Your task to perform on an android device: open chrome and create a bookmark for the current page Image 0: 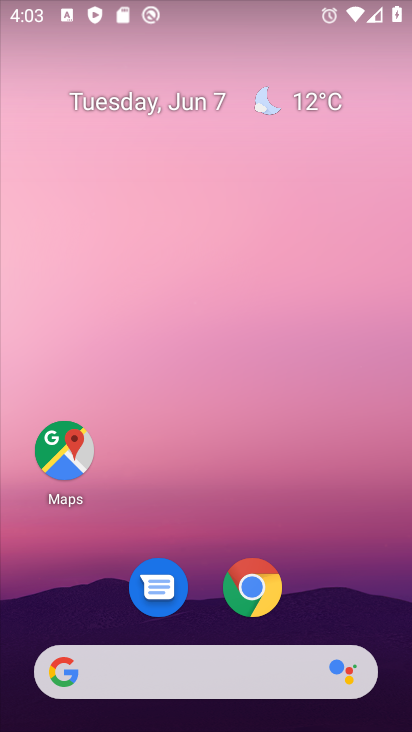
Step 0: drag from (311, 447) to (299, 338)
Your task to perform on an android device: open chrome and create a bookmark for the current page Image 1: 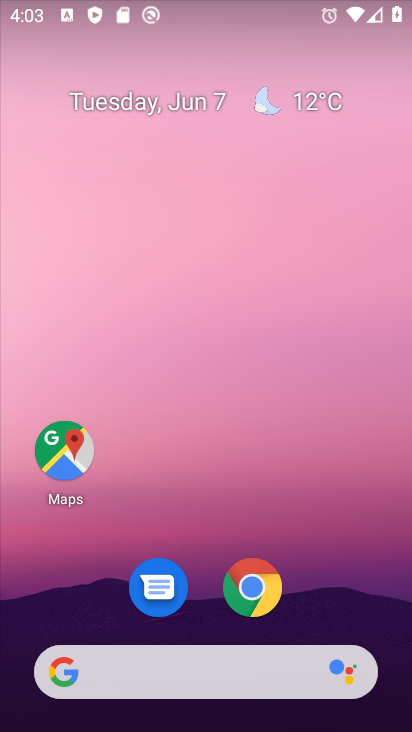
Step 1: drag from (255, 560) to (245, 182)
Your task to perform on an android device: open chrome and create a bookmark for the current page Image 2: 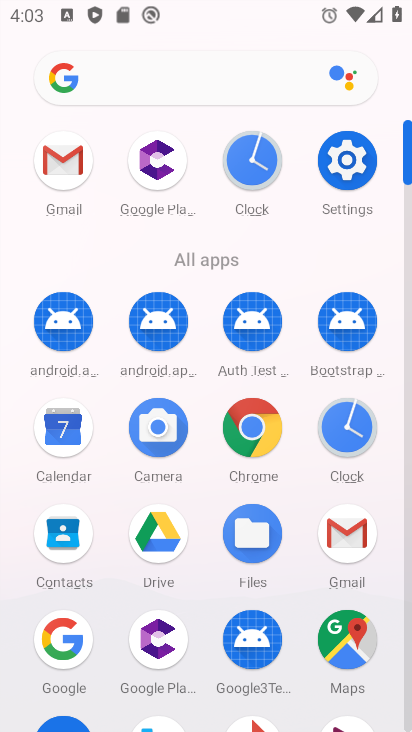
Step 2: click (266, 424)
Your task to perform on an android device: open chrome and create a bookmark for the current page Image 3: 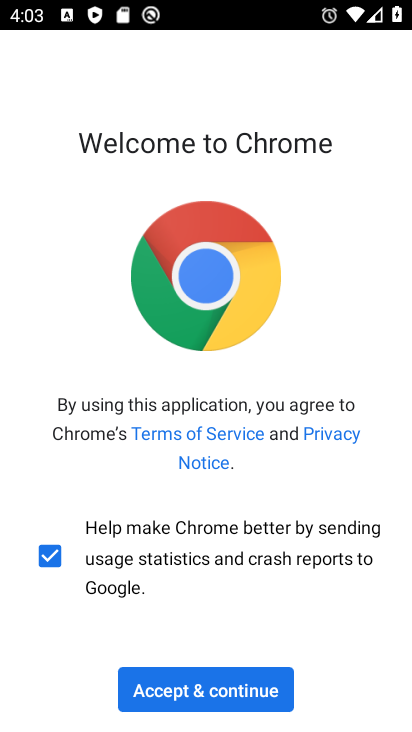
Step 3: click (233, 690)
Your task to perform on an android device: open chrome and create a bookmark for the current page Image 4: 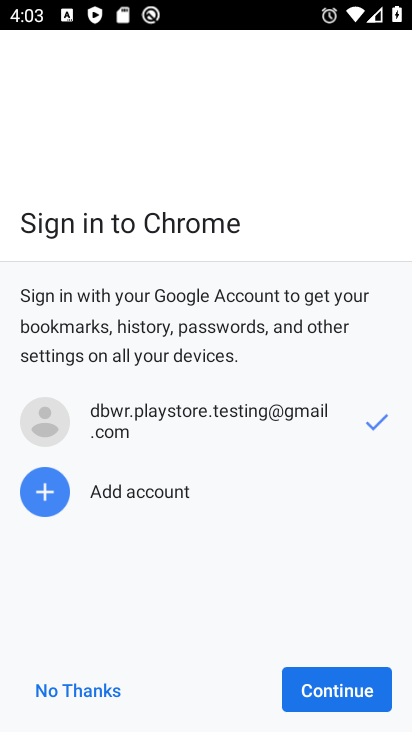
Step 4: click (326, 696)
Your task to perform on an android device: open chrome and create a bookmark for the current page Image 5: 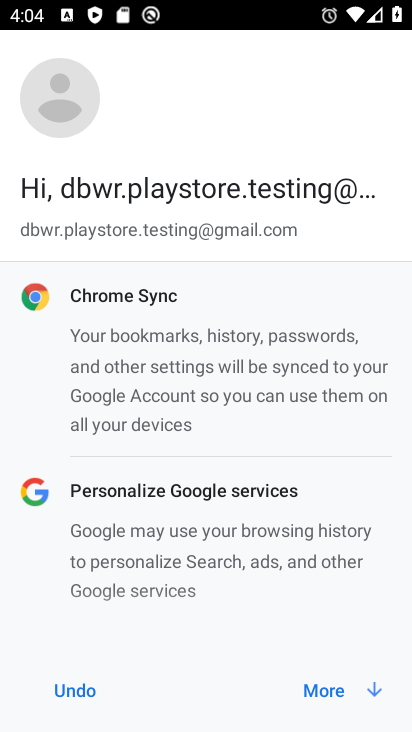
Step 5: click (332, 687)
Your task to perform on an android device: open chrome and create a bookmark for the current page Image 6: 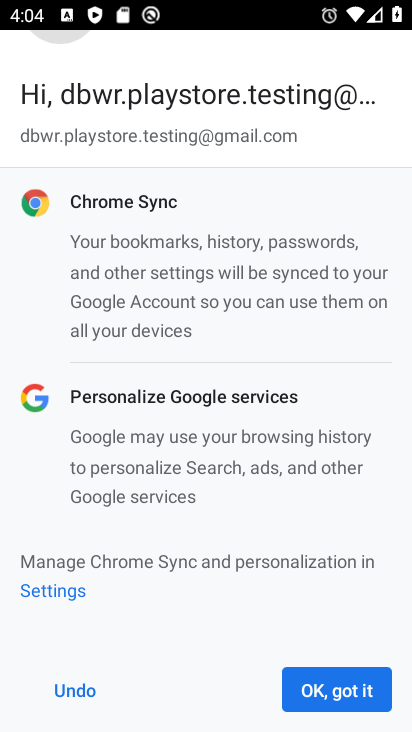
Step 6: click (333, 686)
Your task to perform on an android device: open chrome and create a bookmark for the current page Image 7: 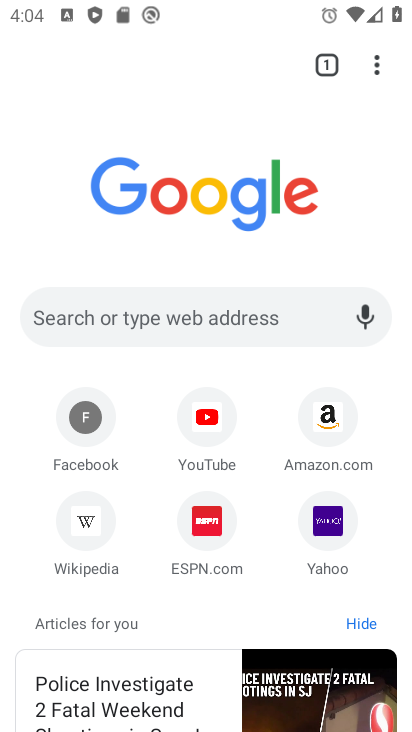
Step 7: click (394, 53)
Your task to perform on an android device: open chrome and create a bookmark for the current page Image 8: 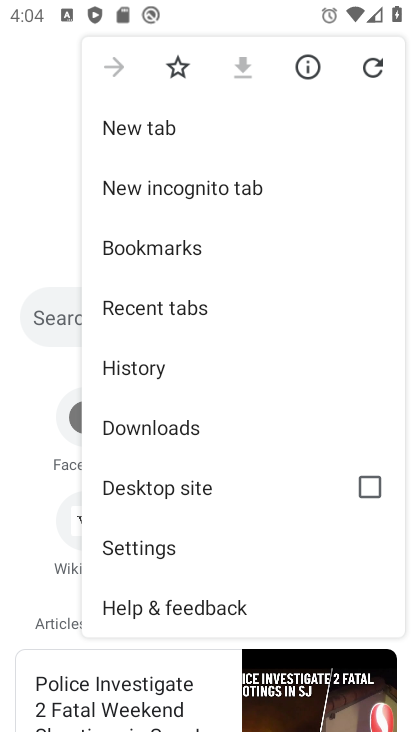
Step 8: click (170, 65)
Your task to perform on an android device: open chrome and create a bookmark for the current page Image 9: 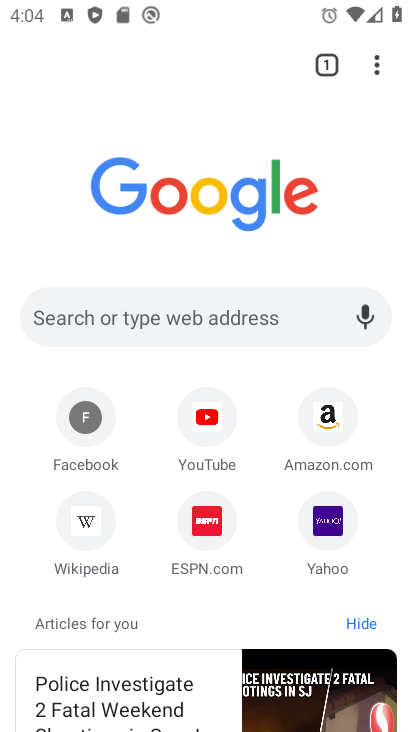
Step 9: task complete